Your task to perform on an android device: Go to privacy settings Image 0: 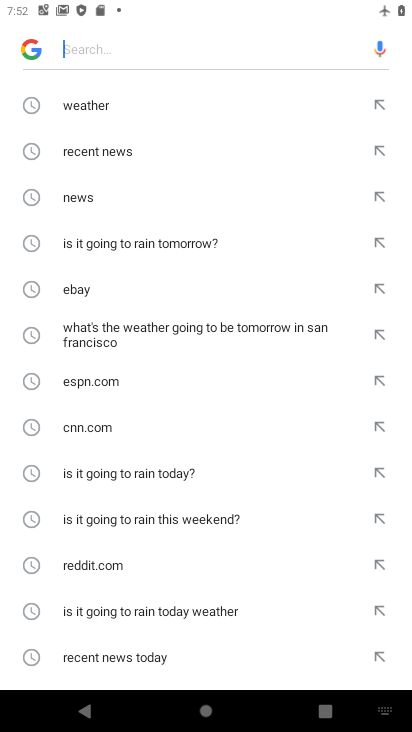
Step 0: press home button
Your task to perform on an android device: Go to privacy settings Image 1: 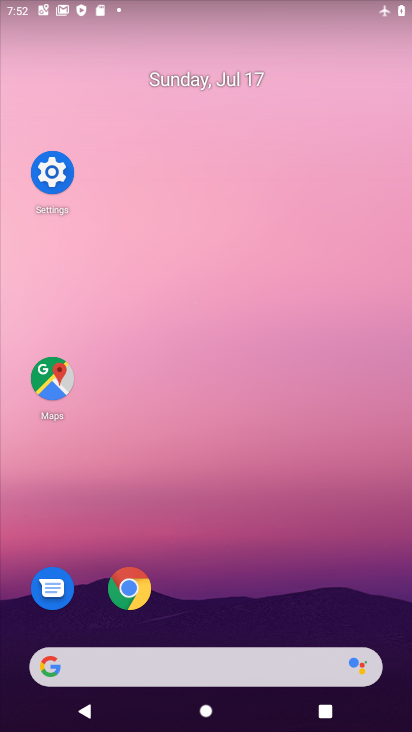
Step 1: click (51, 171)
Your task to perform on an android device: Go to privacy settings Image 2: 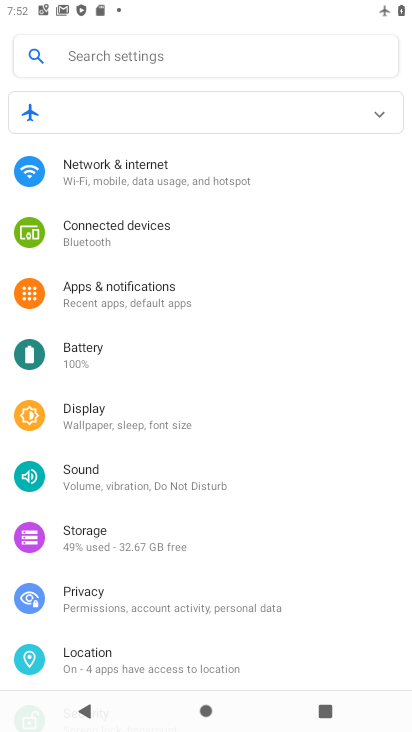
Step 2: click (176, 604)
Your task to perform on an android device: Go to privacy settings Image 3: 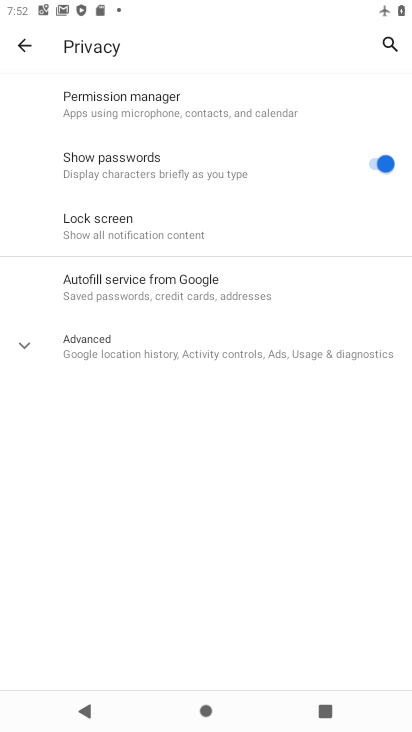
Step 3: task complete